Your task to perform on an android device: toggle airplane mode Image 0: 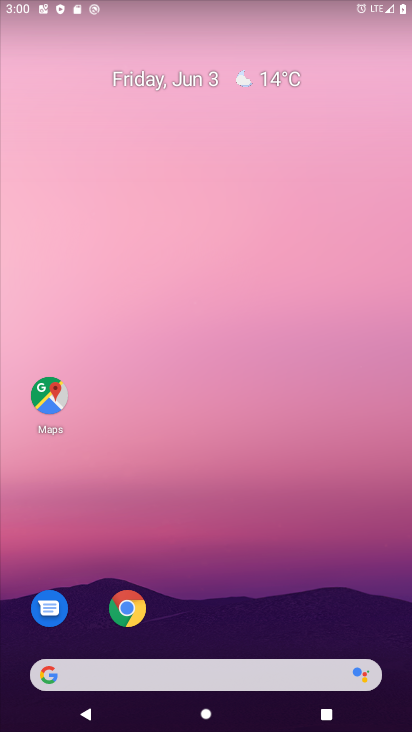
Step 0: drag from (260, 676) to (244, 0)
Your task to perform on an android device: toggle airplane mode Image 1: 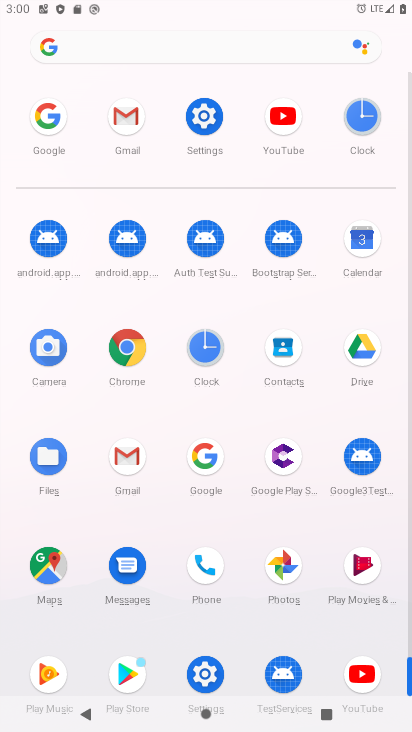
Step 1: click (201, 114)
Your task to perform on an android device: toggle airplane mode Image 2: 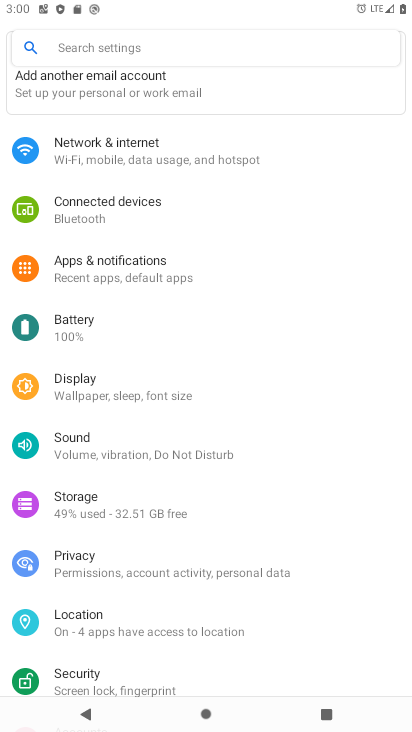
Step 2: click (72, 141)
Your task to perform on an android device: toggle airplane mode Image 3: 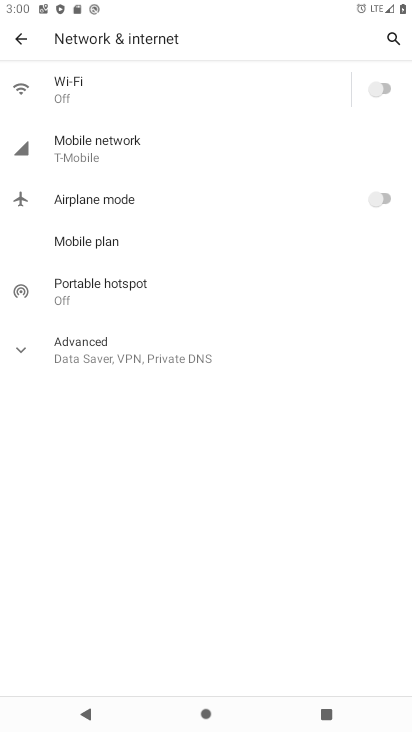
Step 3: click (385, 200)
Your task to perform on an android device: toggle airplane mode Image 4: 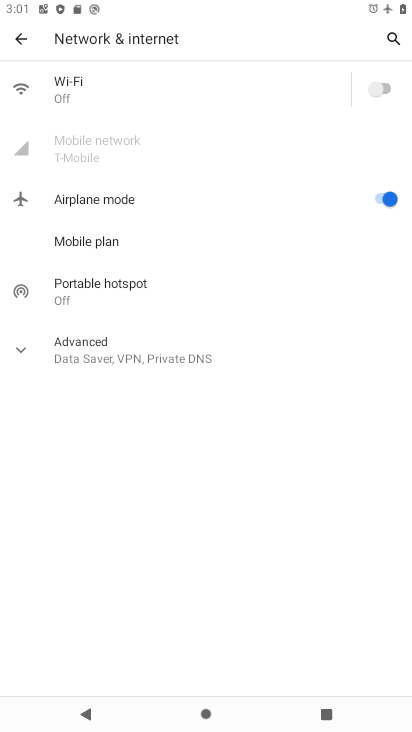
Step 4: task complete